Your task to perform on an android device: Open Amazon Image 0: 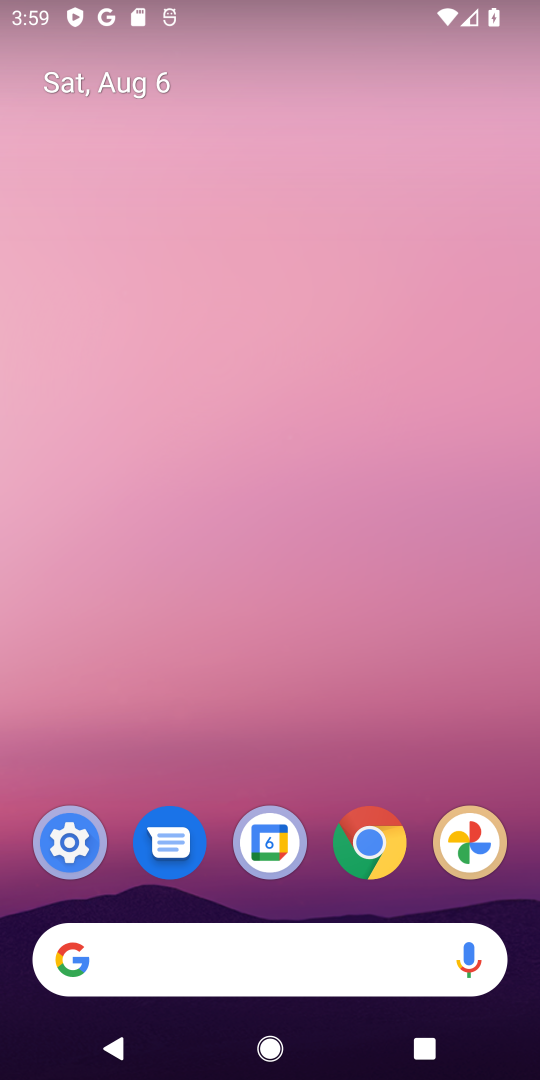
Step 0: click (372, 840)
Your task to perform on an android device: Open Amazon Image 1: 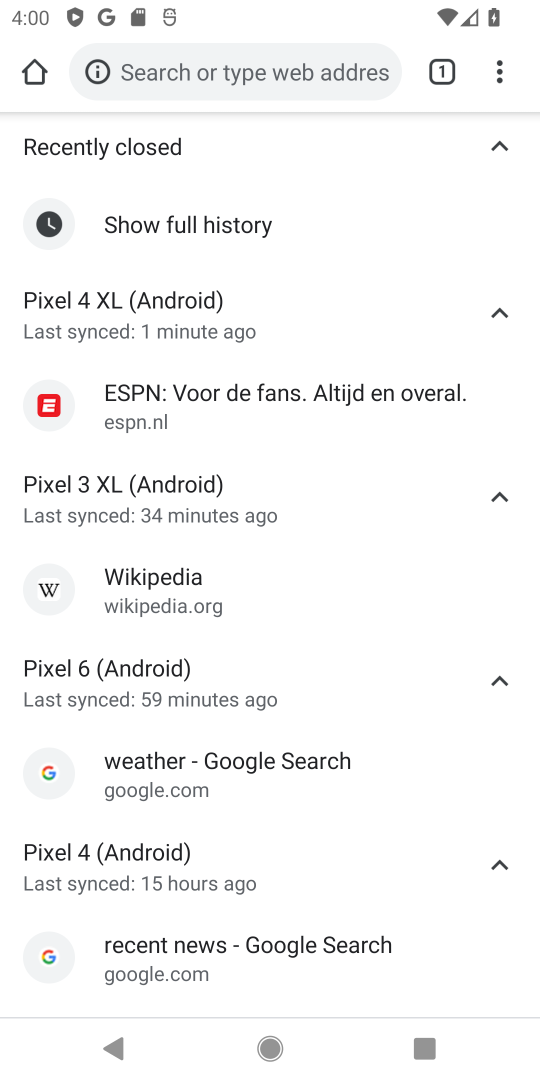
Step 1: click (359, 68)
Your task to perform on an android device: Open Amazon Image 2: 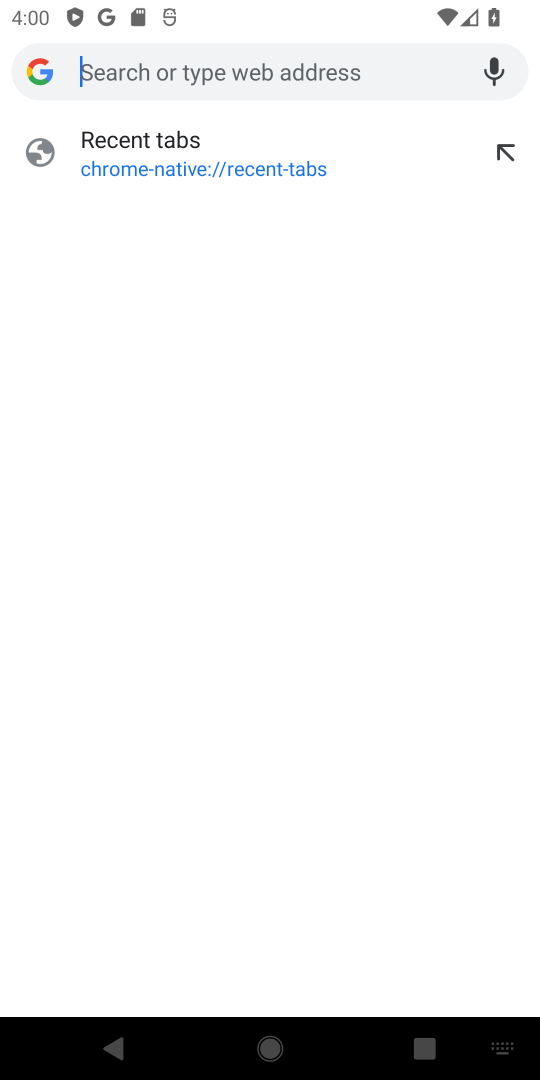
Step 2: type "Amazon"
Your task to perform on an android device: Open Amazon Image 3: 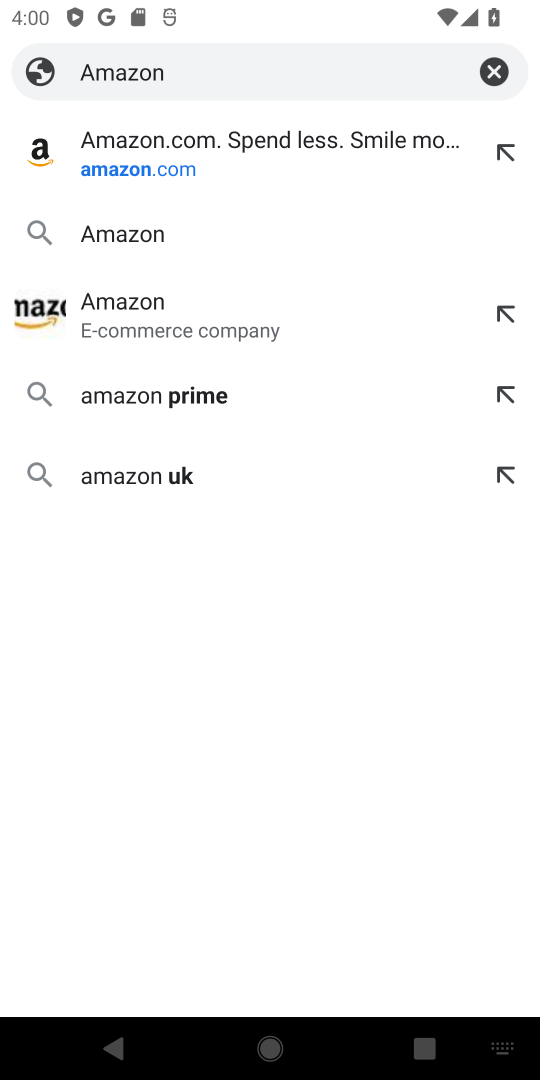
Step 3: click (102, 234)
Your task to perform on an android device: Open Amazon Image 4: 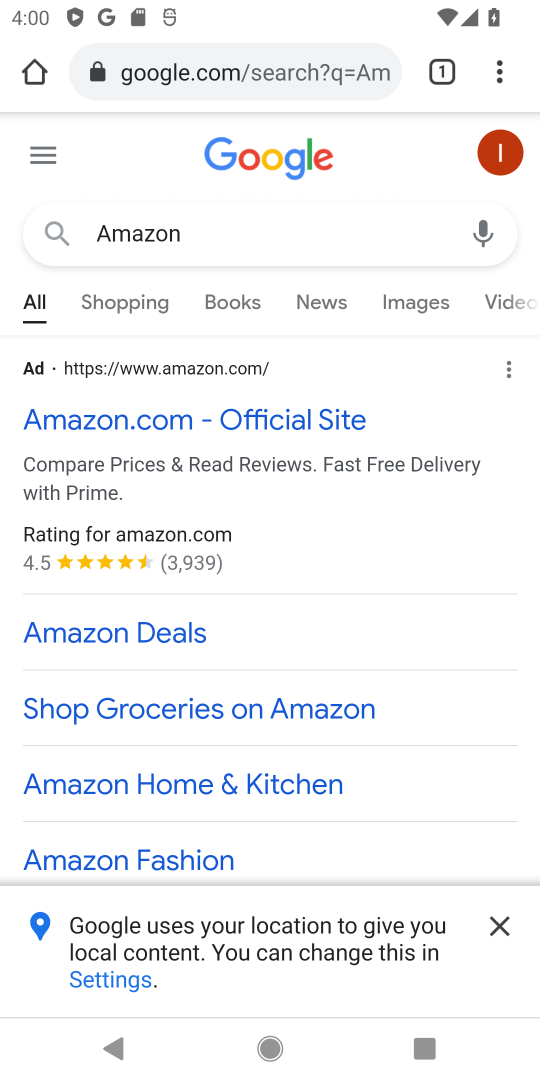
Step 4: task complete